Your task to perform on an android device: Open Google Chrome Image 0: 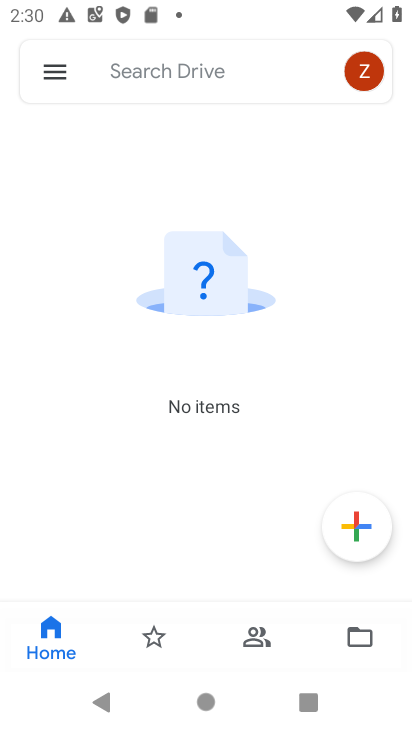
Step 0: press home button
Your task to perform on an android device: Open Google Chrome Image 1: 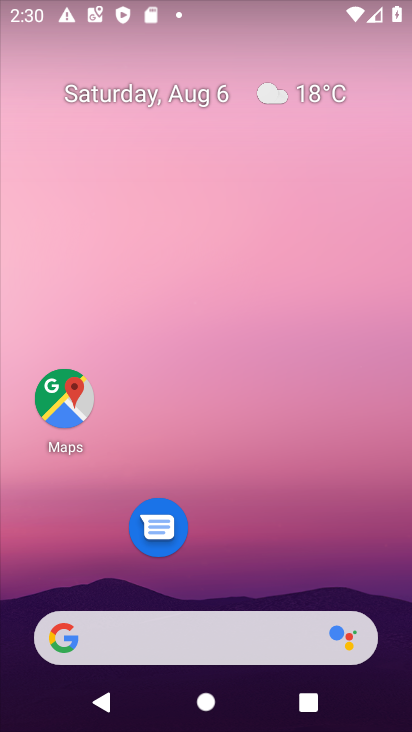
Step 1: drag from (222, 557) to (184, 104)
Your task to perform on an android device: Open Google Chrome Image 2: 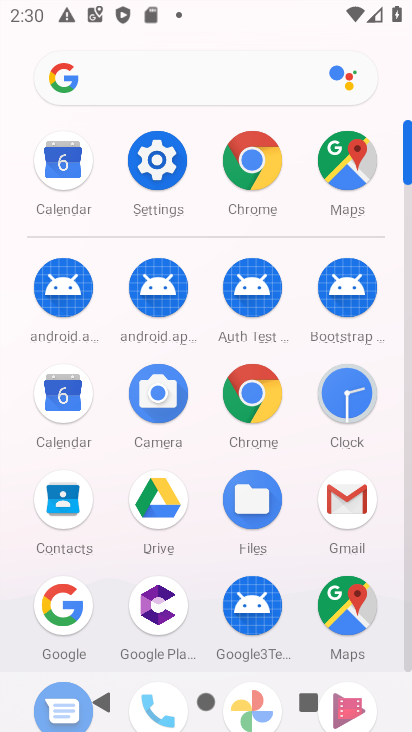
Step 2: click (252, 427)
Your task to perform on an android device: Open Google Chrome Image 3: 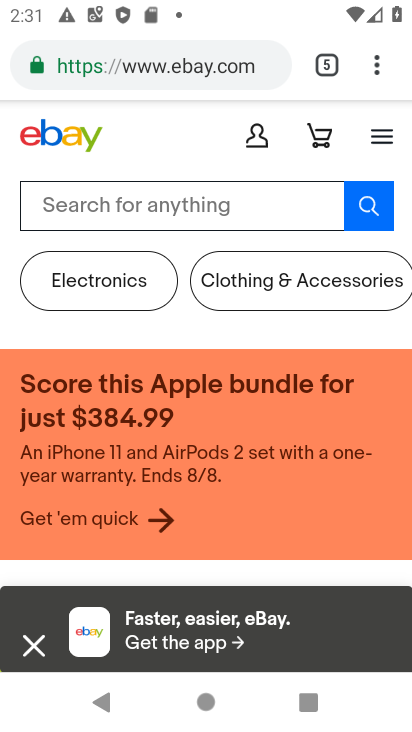
Step 3: task complete